Your task to perform on an android device: Open Google Chrome and open the bookmarks view Image 0: 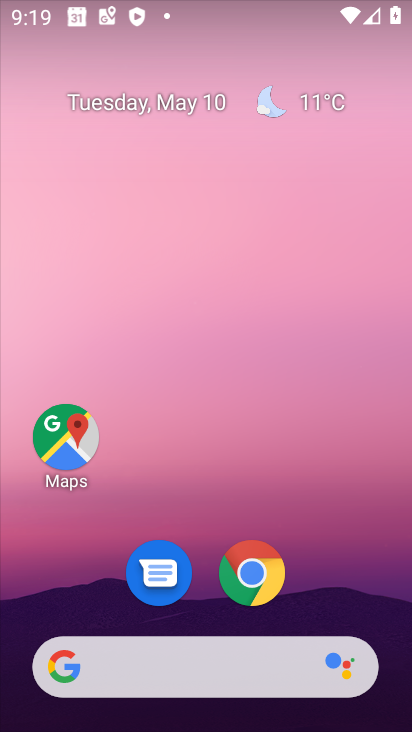
Step 0: click (247, 580)
Your task to perform on an android device: Open Google Chrome and open the bookmarks view Image 1: 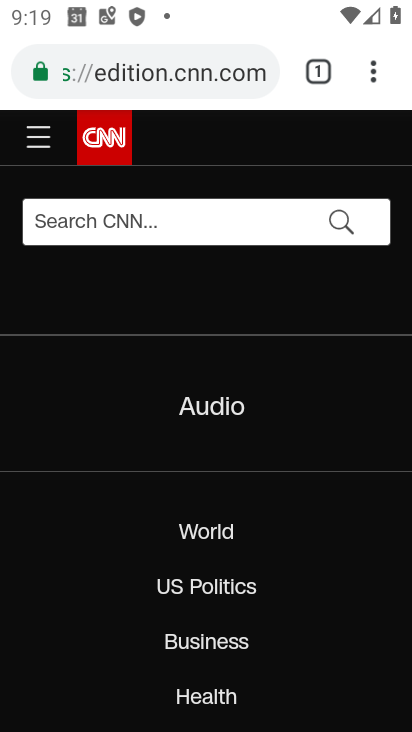
Step 1: task complete